Your task to perform on an android device: turn off data saver in the chrome app Image 0: 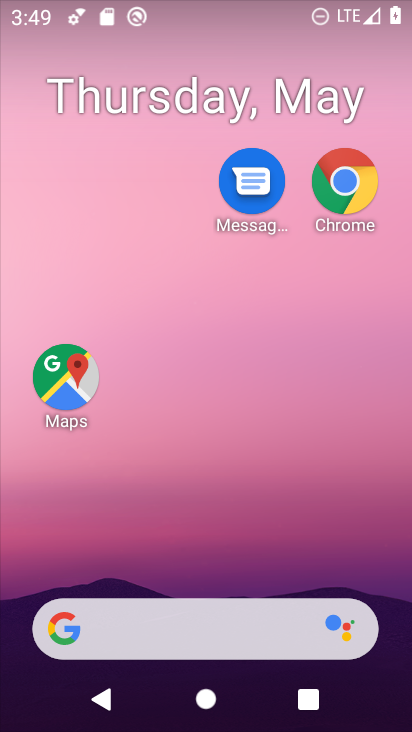
Step 0: drag from (196, 566) to (229, 53)
Your task to perform on an android device: turn off data saver in the chrome app Image 1: 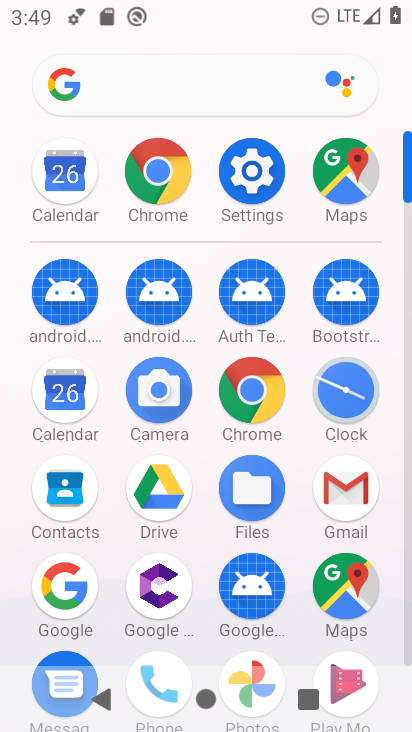
Step 1: click (236, 404)
Your task to perform on an android device: turn off data saver in the chrome app Image 2: 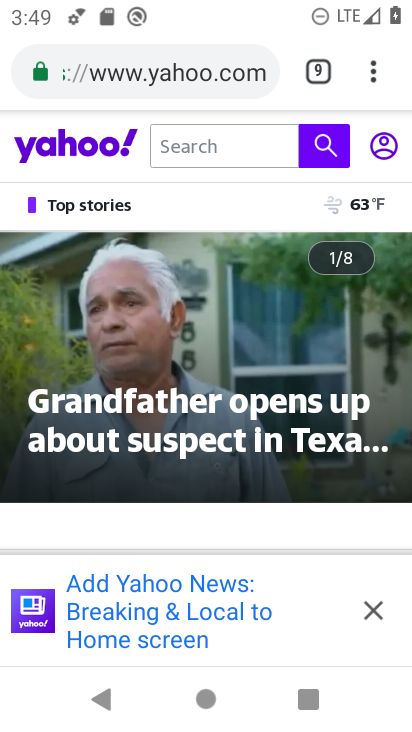
Step 2: click (379, 72)
Your task to perform on an android device: turn off data saver in the chrome app Image 3: 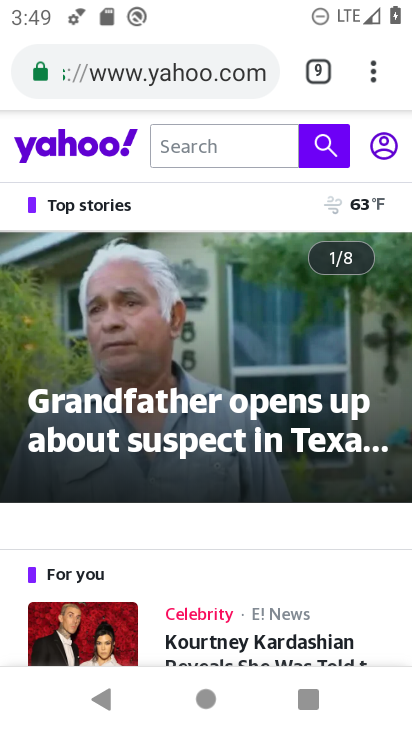
Step 3: drag from (375, 63) to (213, 502)
Your task to perform on an android device: turn off data saver in the chrome app Image 4: 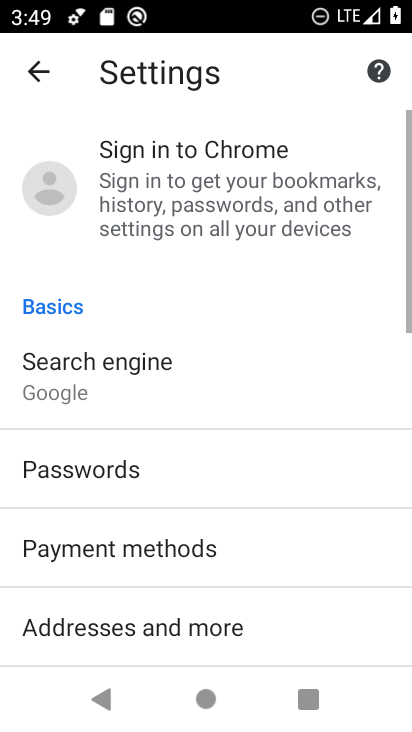
Step 4: drag from (290, 581) to (236, 129)
Your task to perform on an android device: turn off data saver in the chrome app Image 5: 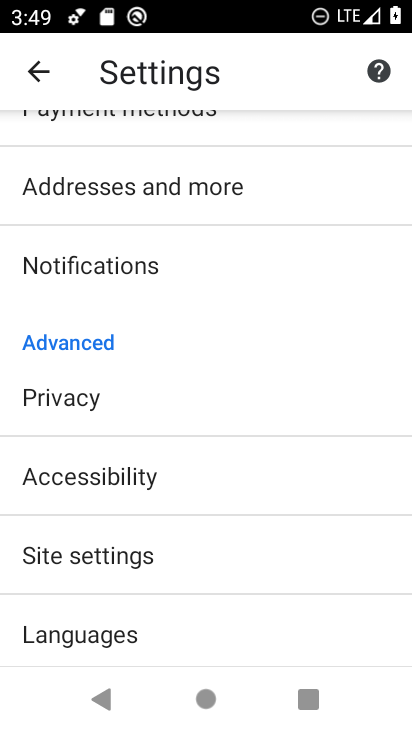
Step 5: drag from (196, 615) to (200, 335)
Your task to perform on an android device: turn off data saver in the chrome app Image 6: 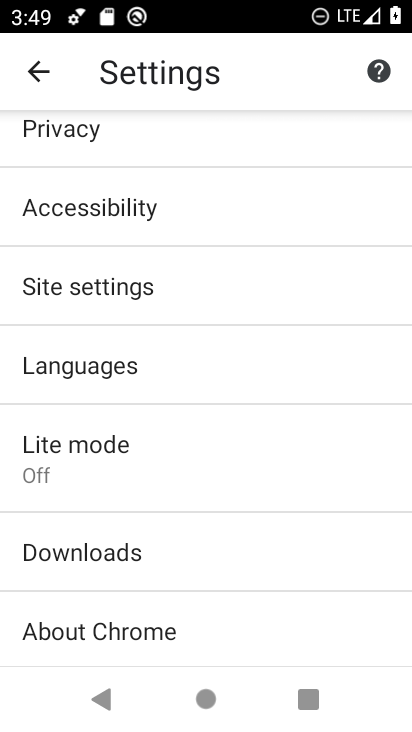
Step 6: click (177, 437)
Your task to perform on an android device: turn off data saver in the chrome app Image 7: 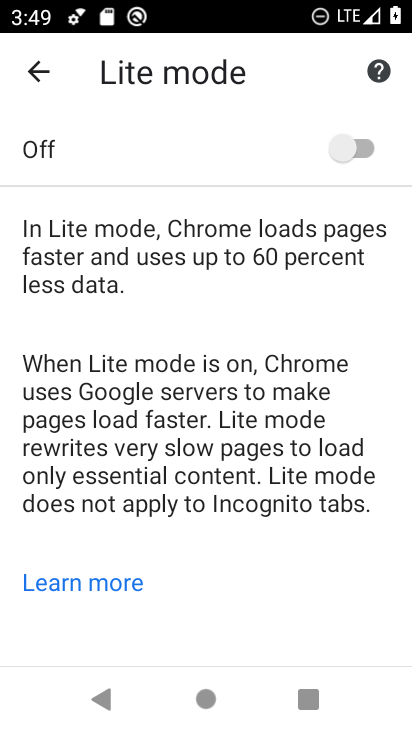
Step 7: task complete